Your task to perform on an android device: Go to Yahoo.com Image 0: 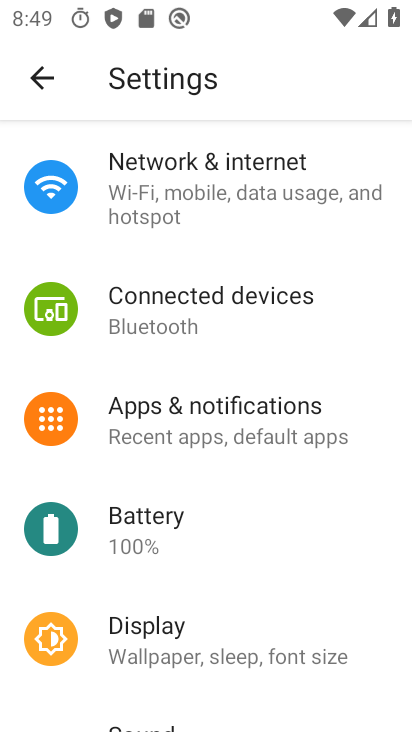
Step 0: press home button
Your task to perform on an android device: Go to Yahoo.com Image 1: 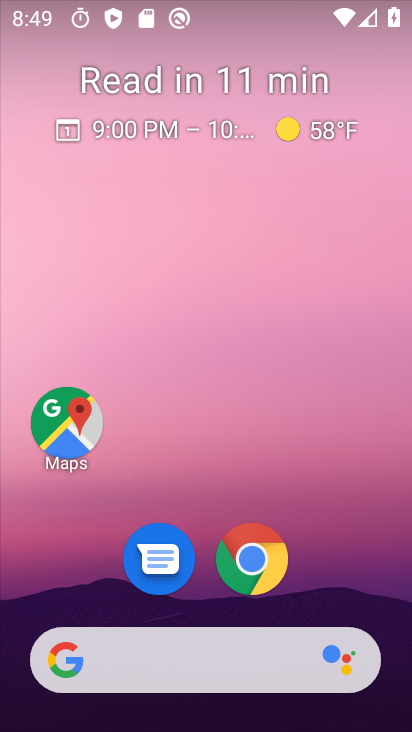
Step 1: click (253, 557)
Your task to perform on an android device: Go to Yahoo.com Image 2: 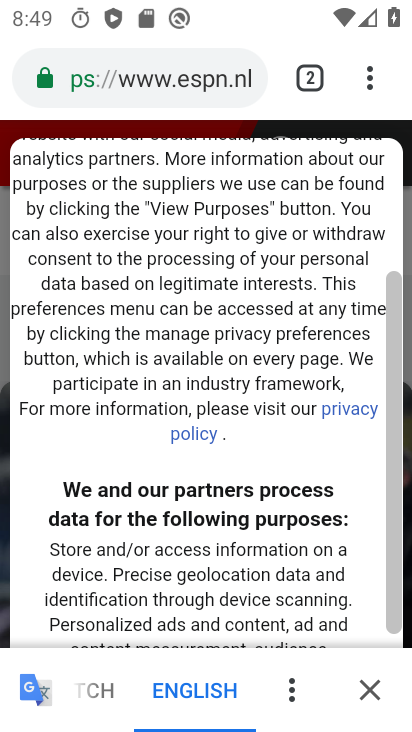
Step 2: click (233, 86)
Your task to perform on an android device: Go to Yahoo.com Image 3: 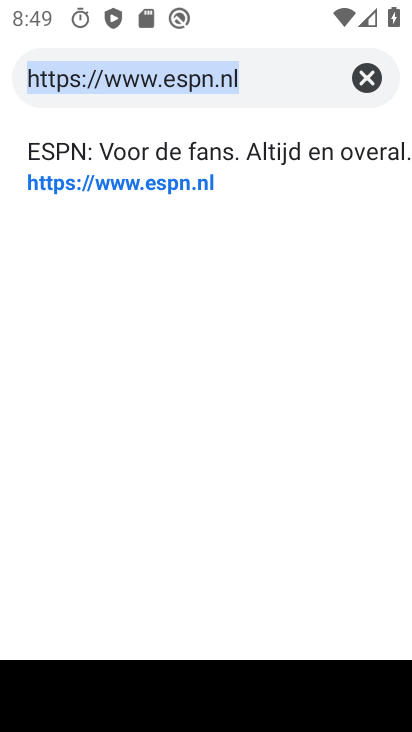
Step 3: click (370, 78)
Your task to perform on an android device: Go to Yahoo.com Image 4: 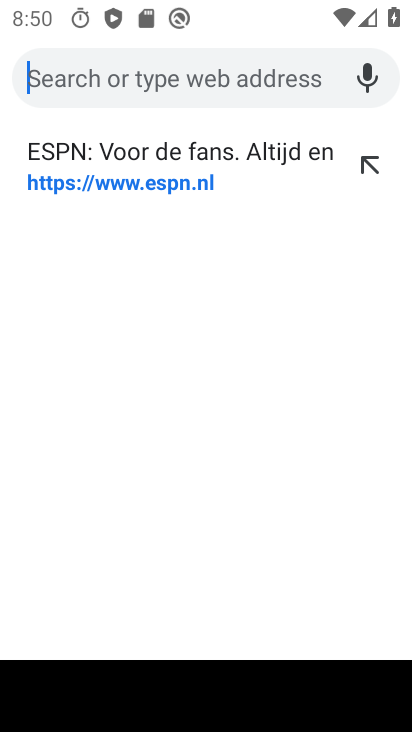
Step 4: type "Yahoo.com"
Your task to perform on an android device: Go to Yahoo.com Image 5: 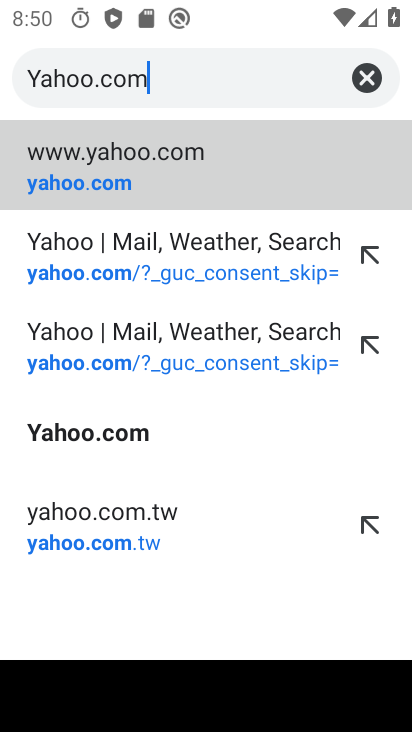
Step 5: click (98, 437)
Your task to perform on an android device: Go to Yahoo.com Image 6: 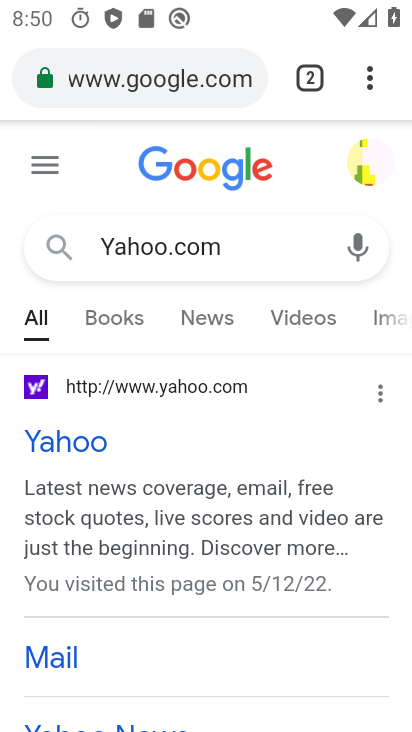
Step 6: click (98, 437)
Your task to perform on an android device: Go to Yahoo.com Image 7: 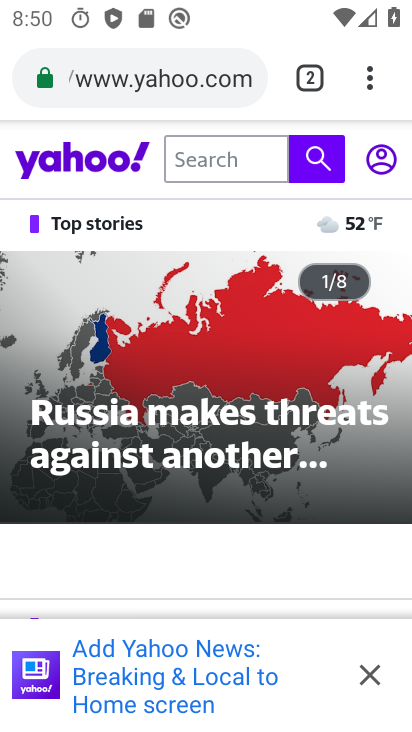
Step 7: task complete